Your task to perform on an android device: turn off location Image 0: 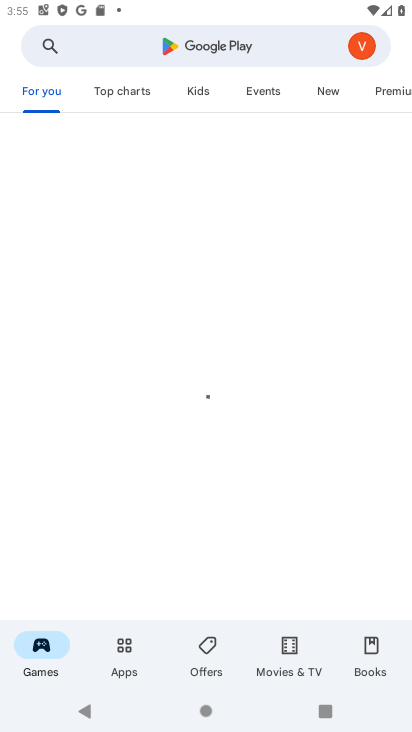
Step 0: press home button
Your task to perform on an android device: turn off location Image 1: 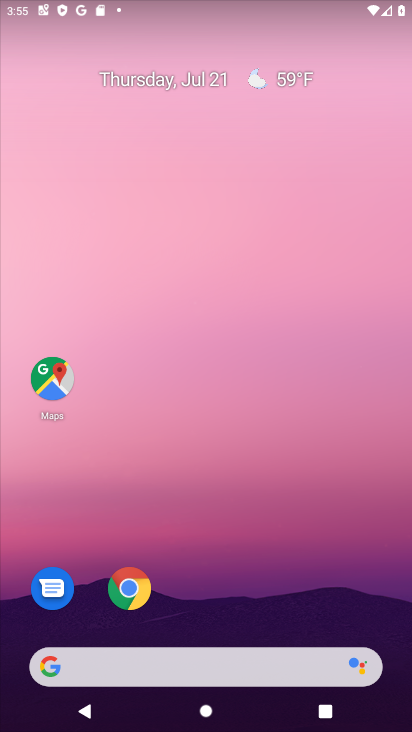
Step 1: drag from (238, 712) to (233, 131)
Your task to perform on an android device: turn off location Image 2: 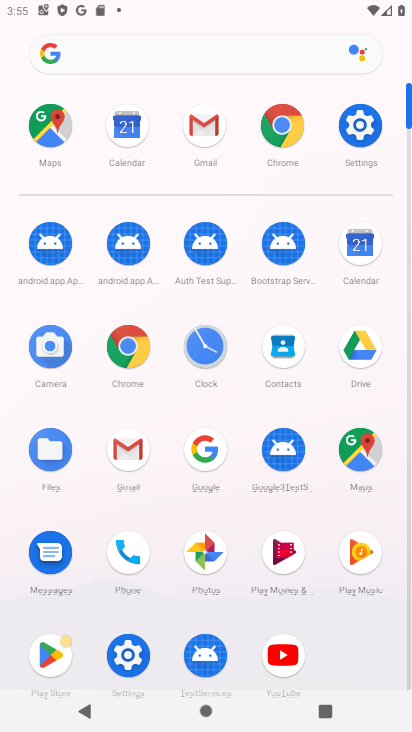
Step 2: click (370, 132)
Your task to perform on an android device: turn off location Image 3: 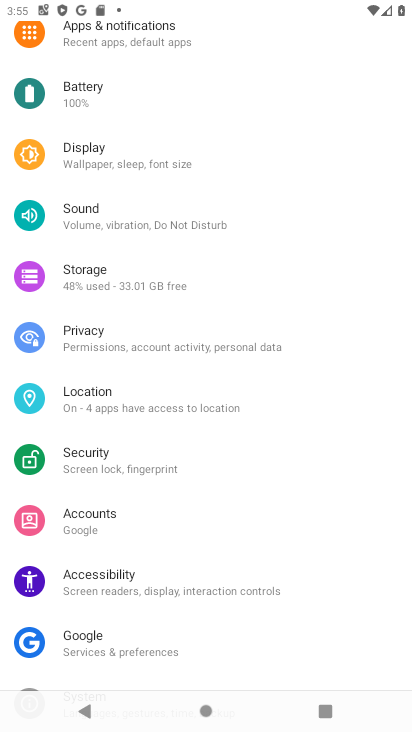
Step 3: click (97, 396)
Your task to perform on an android device: turn off location Image 4: 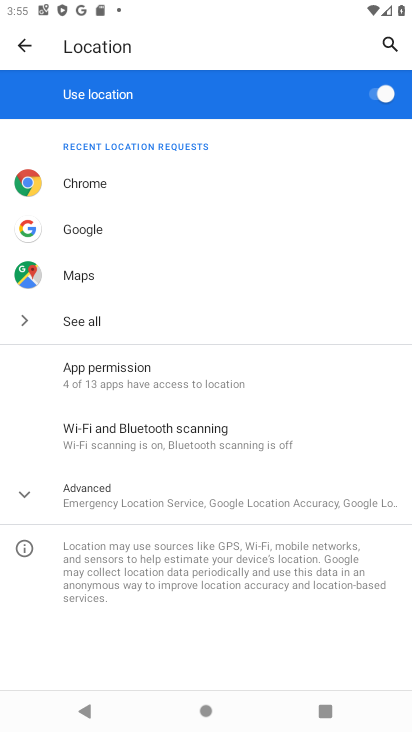
Step 4: click (371, 95)
Your task to perform on an android device: turn off location Image 5: 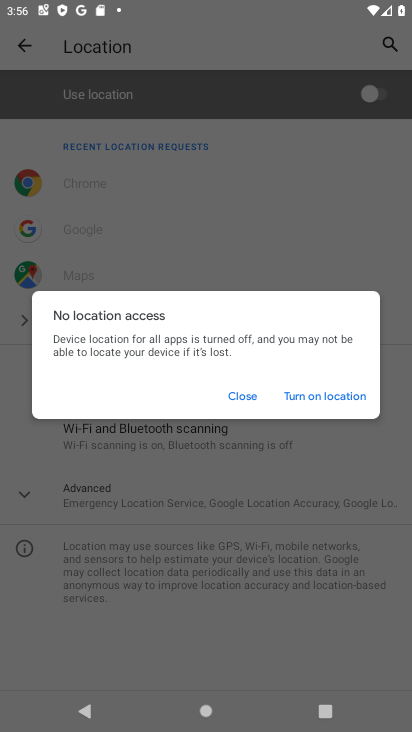
Step 5: click (239, 395)
Your task to perform on an android device: turn off location Image 6: 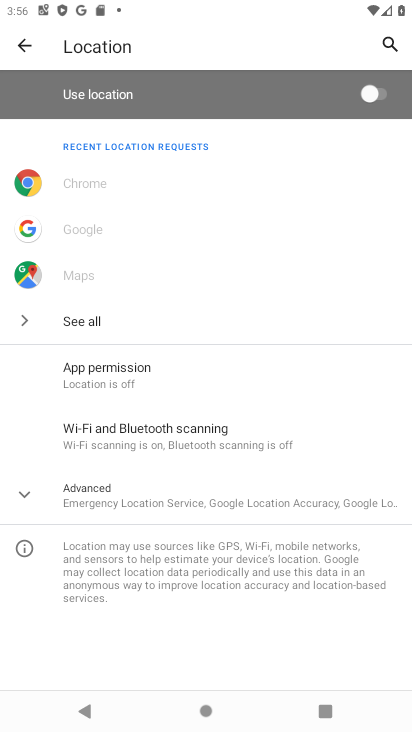
Step 6: task complete